Your task to perform on an android device: Open the map Image 0: 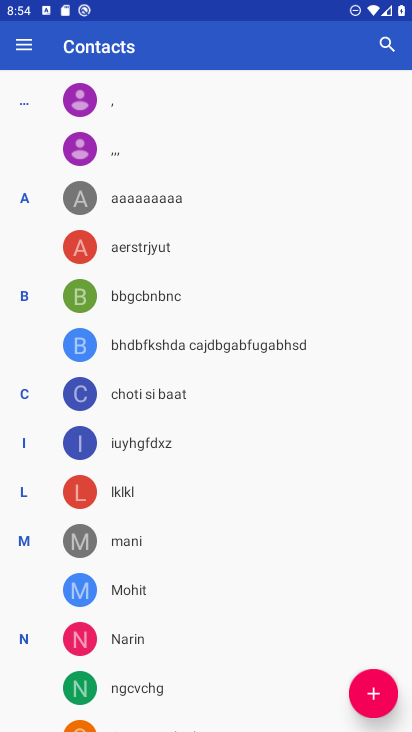
Step 0: press home button
Your task to perform on an android device: Open the map Image 1: 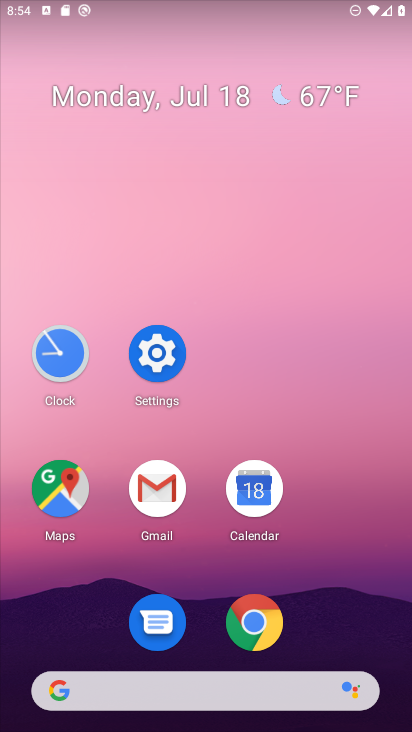
Step 1: click (68, 491)
Your task to perform on an android device: Open the map Image 2: 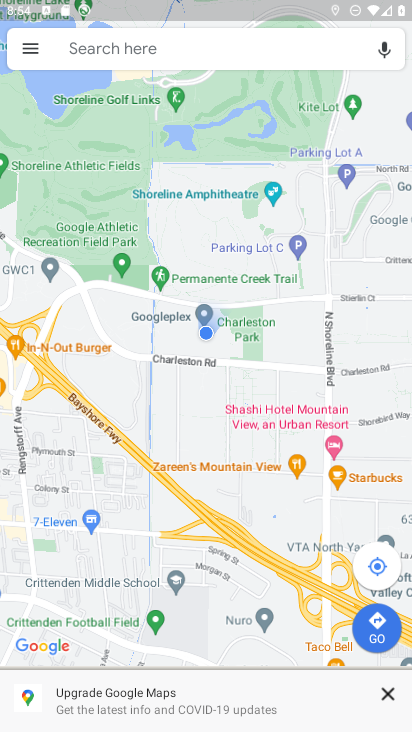
Step 2: task complete